Your task to perform on an android device: turn notification dots off Image 0: 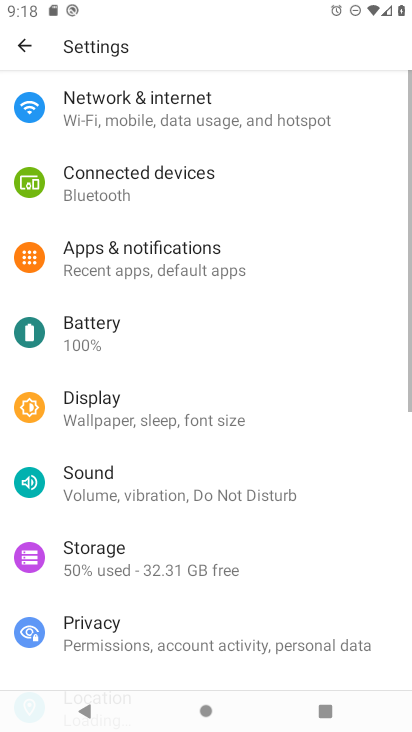
Step 0: press home button
Your task to perform on an android device: turn notification dots off Image 1: 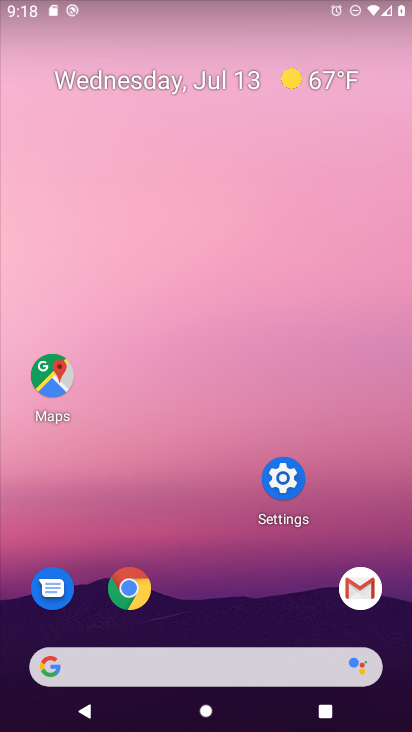
Step 1: click (277, 481)
Your task to perform on an android device: turn notification dots off Image 2: 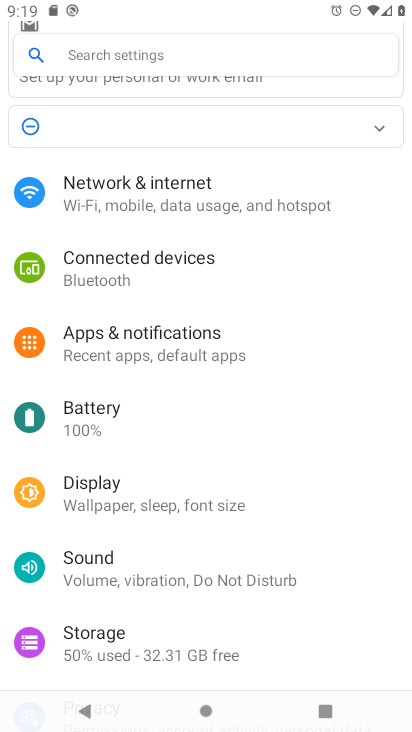
Step 2: click (121, 52)
Your task to perform on an android device: turn notification dots off Image 3: 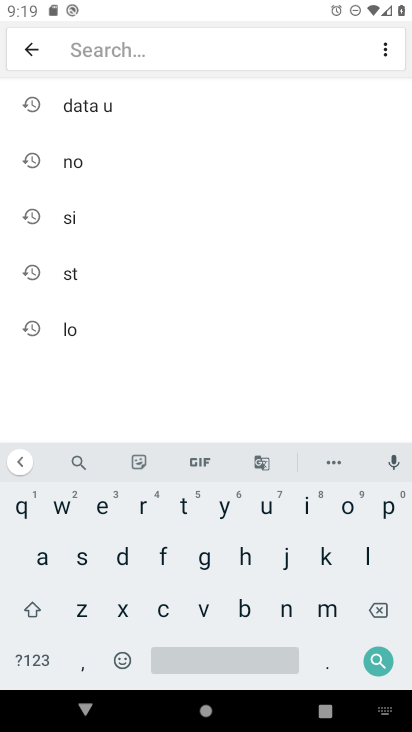
Step 3: click (121, 578)
Your task to perform on an android device: turn notification dots off Image 4: 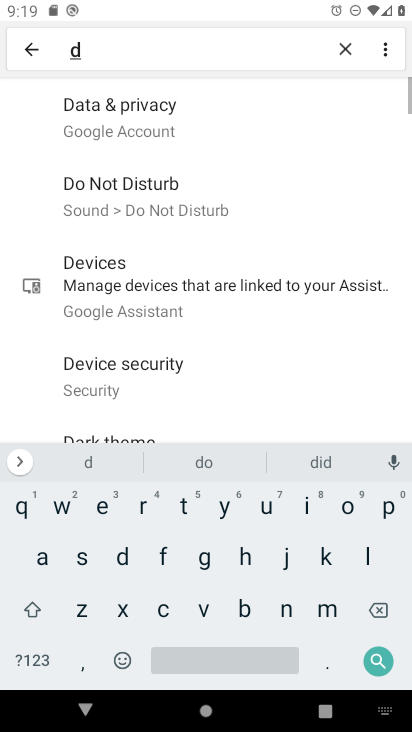
Step 4: click (344, 514)
Your task to perform on an android device: turn notification dots off Image 5: 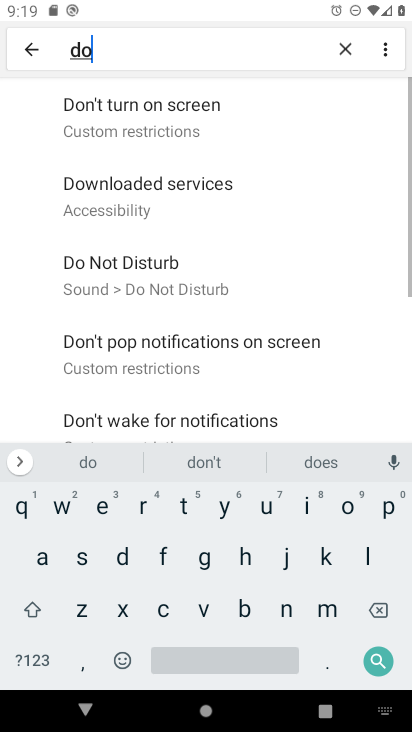
Step 5: click (182, 510)
Your task to perform on an android device: turn notification dots off Image 6: 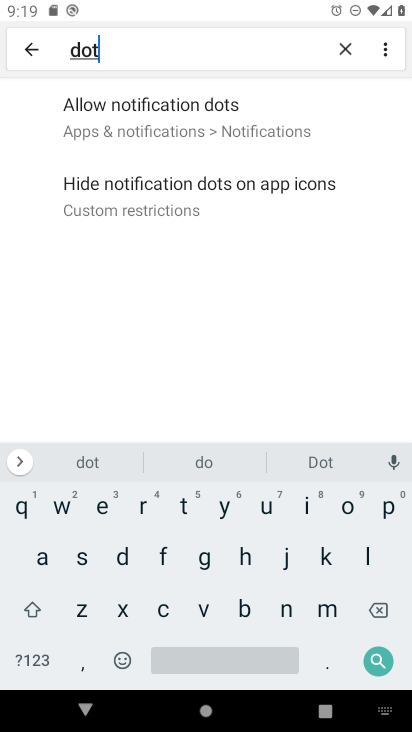
Step 6: click (182, 136)
Your task to perform on an android device: turn notification dots off Image 7: 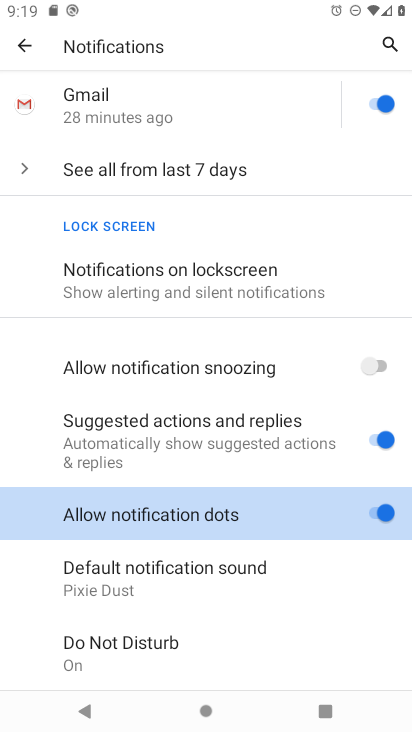
Step 7: click (210, 517)
Your task to perform on an android device: turn notification dots off Image 8: 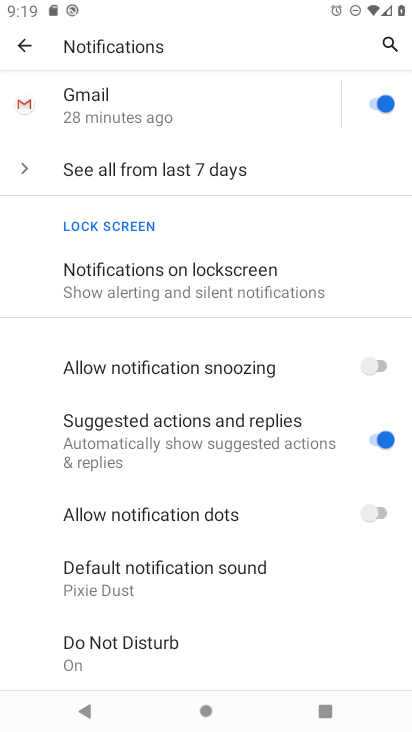
Step 8: task complete